Your task to perform on an android device: Open display settings Image 0: 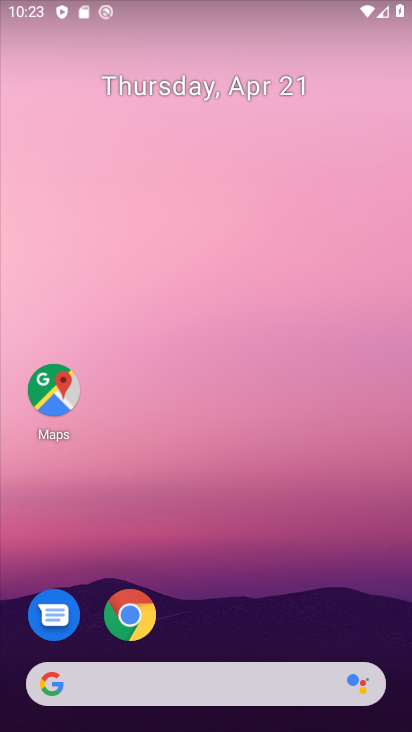
Step 0: drag from (208, 715) to (213, 113)
Your task to perform on an android device: Open display settings Image 1: 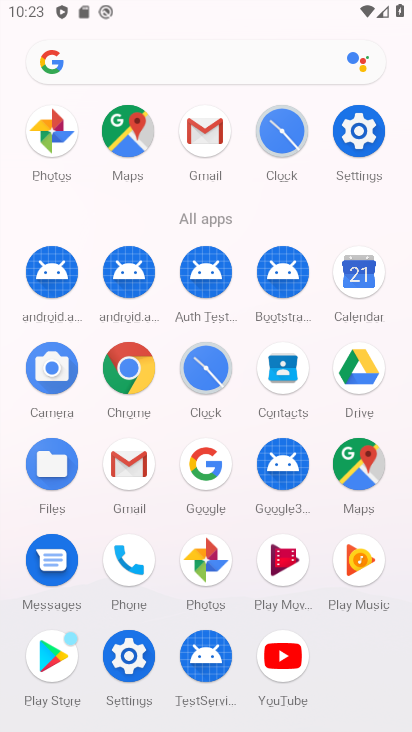
Step 1: click (353, 131)
Your task to perform on an android device: Open display settings Image 2: 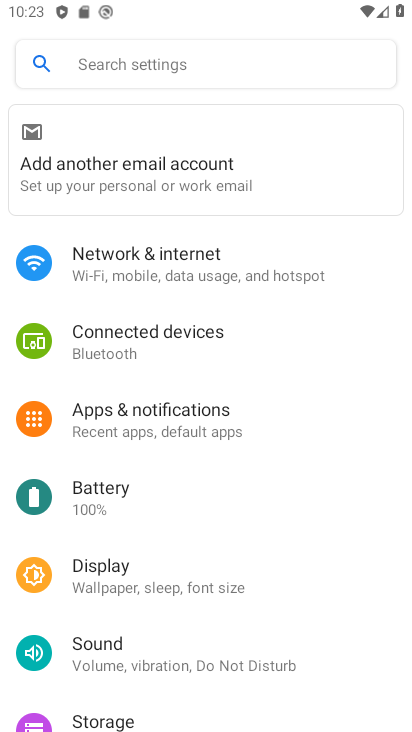
Step 2: click (99, 580)
Your task to perform on an android device: Open display settings Image 3: 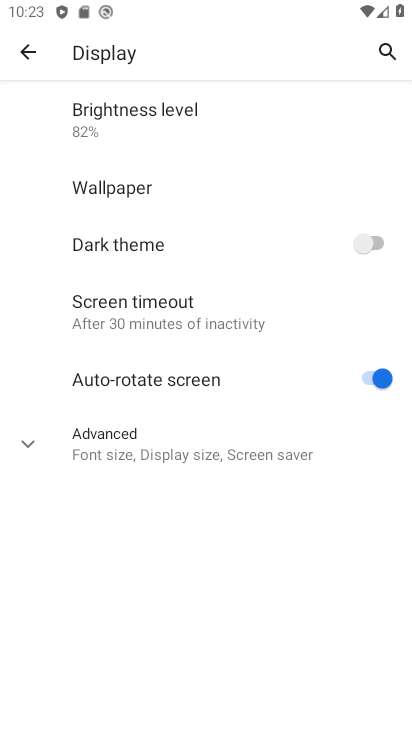
Step 3: task complete